Your task to perform on an android device: Open Android settings Image 0: 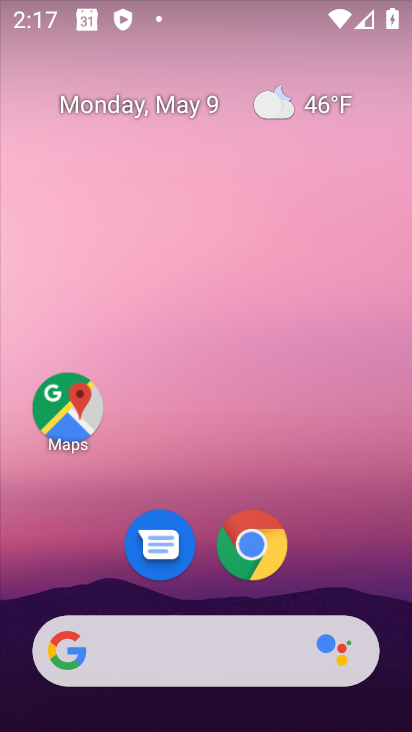
Step 0: drag from (203, 595) to (233, 130)
Your task to perform on an android device: Open Android settings Image 1: 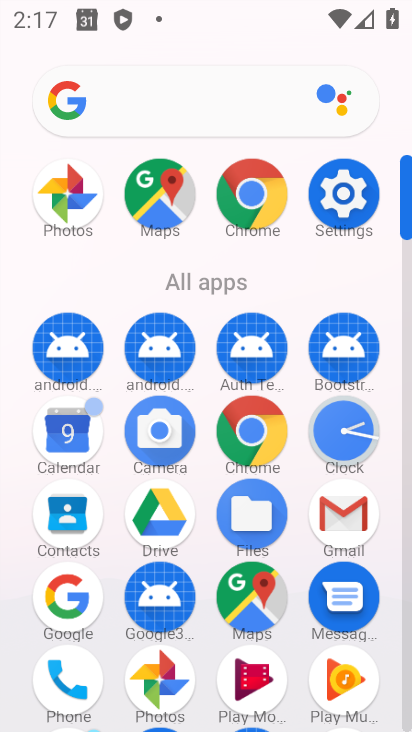
Step 1: click (324, 201)
Your task to perform on an android device: Open Android settings Image 2: 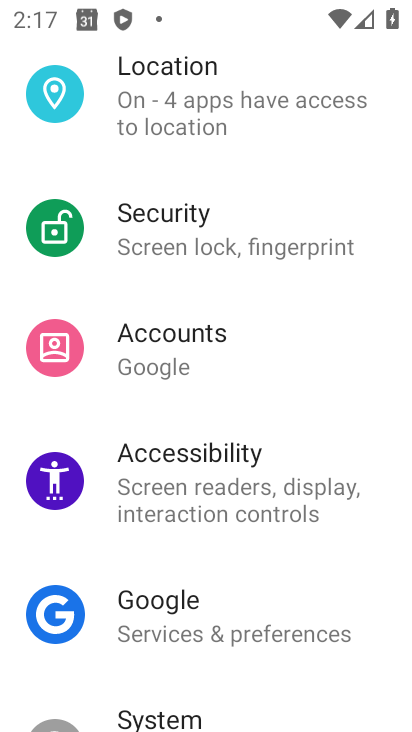
Step 2: task complete